Your task to perform on an android device: move a message to another label in the gmail app Image 0: 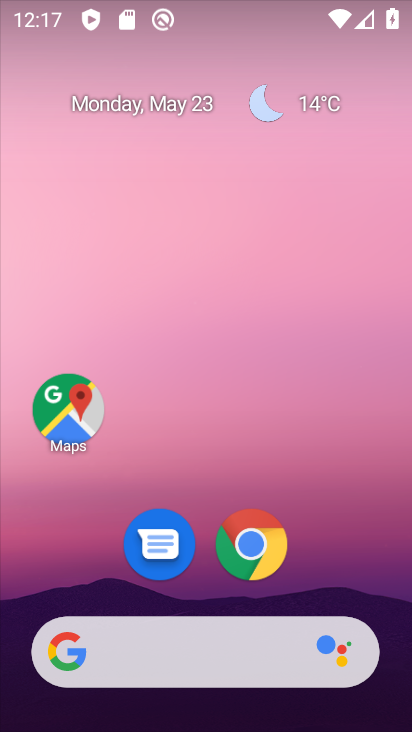
Step 0: drag from (340, 473) to (301, 124)
Your task to perform on an android device: move a message to another label in the gmail app Image 1: 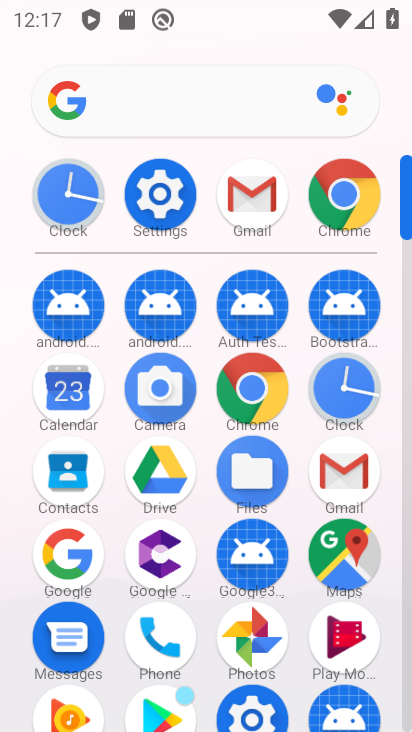
Step 1: click (331, 476)
Your task to perform on an android device: move a message to another label in the gmail app Image 2: 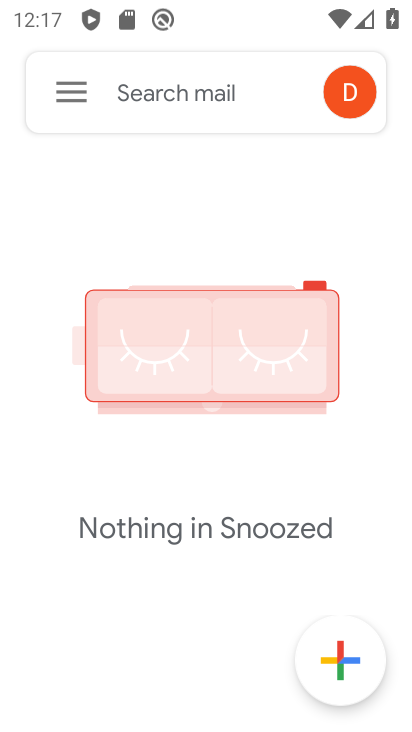
Step 2: click (70, 90)
Your task to perform on an android device: move a message to another label in the gmail app Image 3: 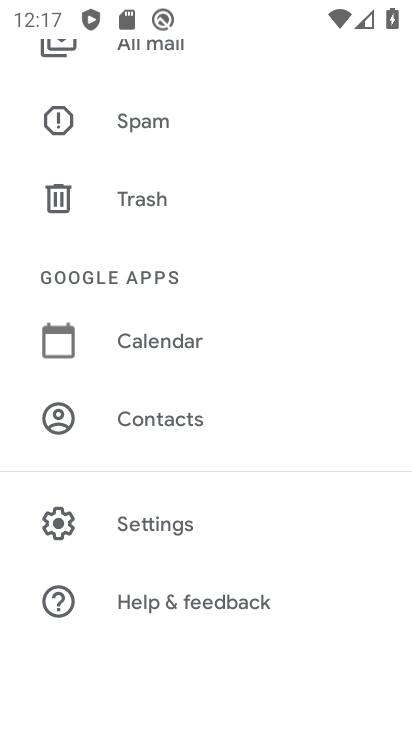
Step 3: drag from (170, 197) to (215, 518)
Your task to perform on an android device: move a message to another label in the gmail app Image 4: 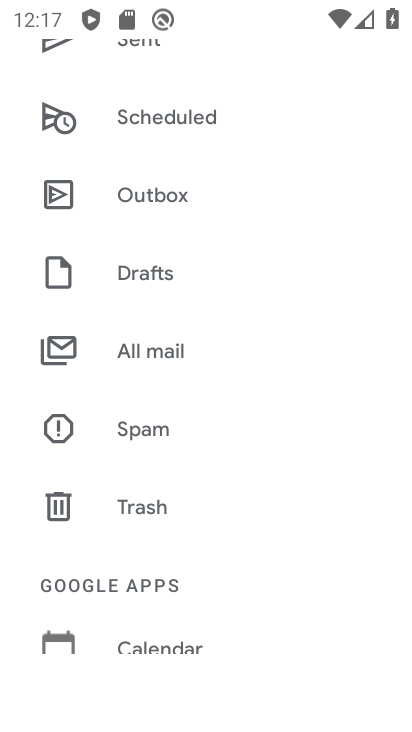
Step 4: click (107, 347)
Your task to perform on an android device: move a message to another label in the gmail app Image 5: 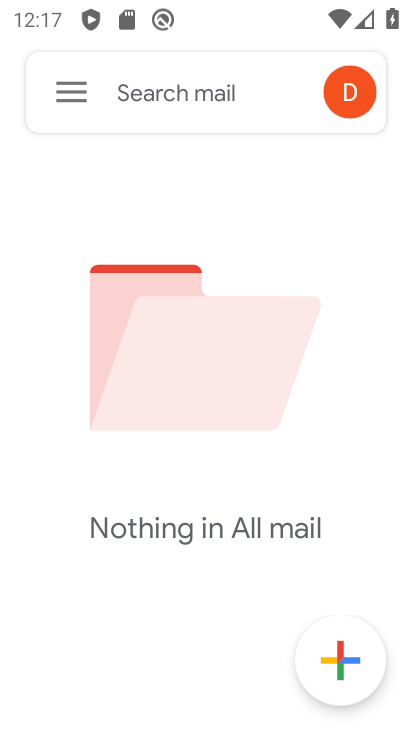
Step 5: task complete